Your task to perform on an android device: What is the recent news? Image 0: 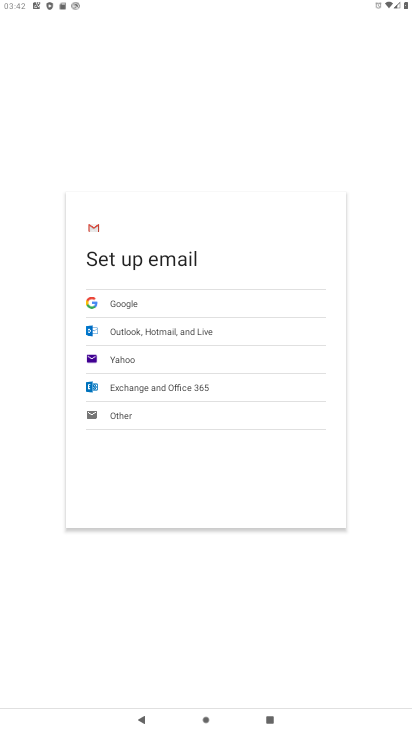
Step 0: press home button
Your task to perform on an android device: What is the recent news? Image 1: 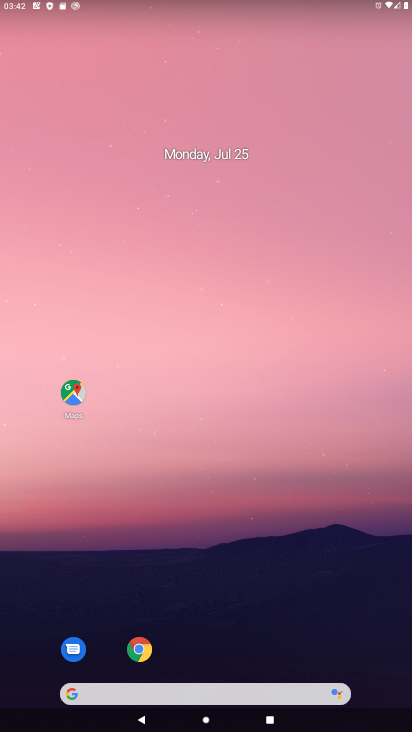
Step 1: task complete